Your task to perform on an android device: remove spam from my inbox in the gmail app Image 0: 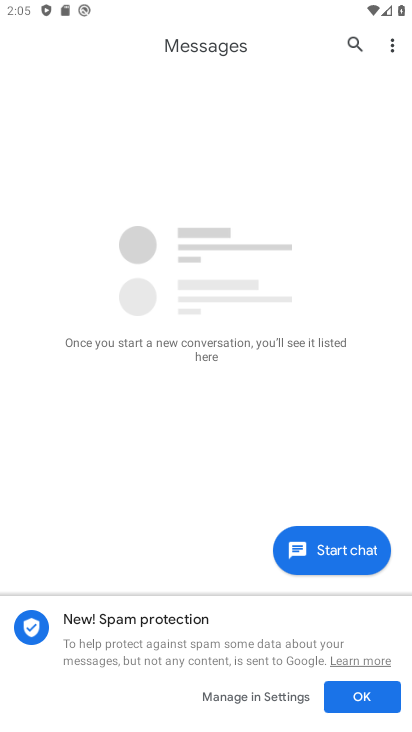
Step 0: click (369, 702)
Your task to perform on an android device: remove spam from my inbox in the gmail app Image 1: 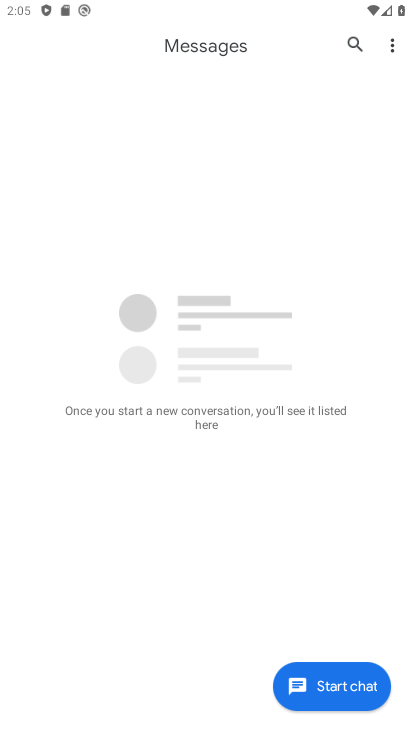
Step 1: click (337, 694)
Your task to perform on an android device: remove spam from my inbox in the gmail app Image 2: 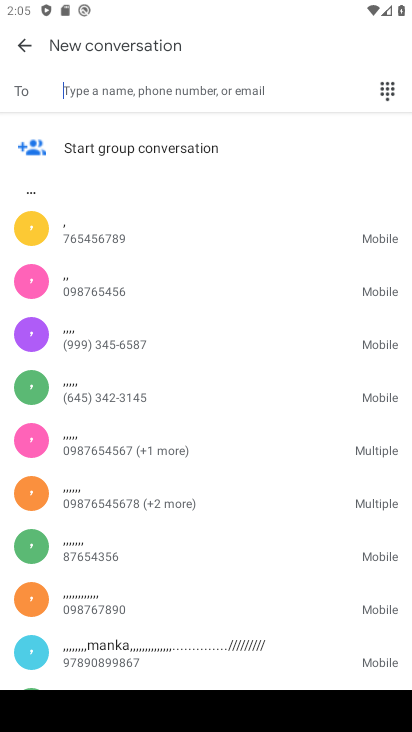
Step 2: click (29, 40)
Your task to perform on an android device: remove spam from my inbox in the gmail app Image 3: 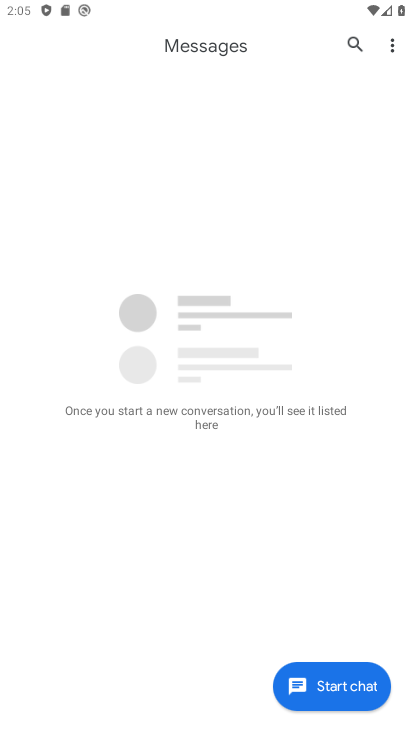
Step 3: press back button
Your task to perform on an android device: remove spam from my inbox in the gmail app Image 4: 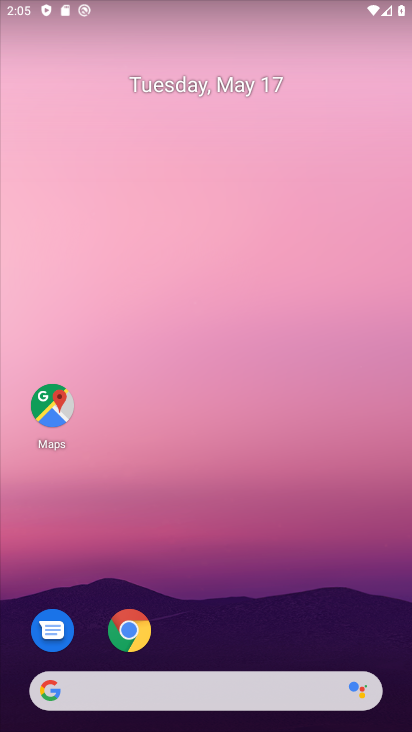
Step 4: drag from (331, 717) to (246, 68)
Your task to perform on an android device: remove spam from my inbox in the gmail app Image 5: 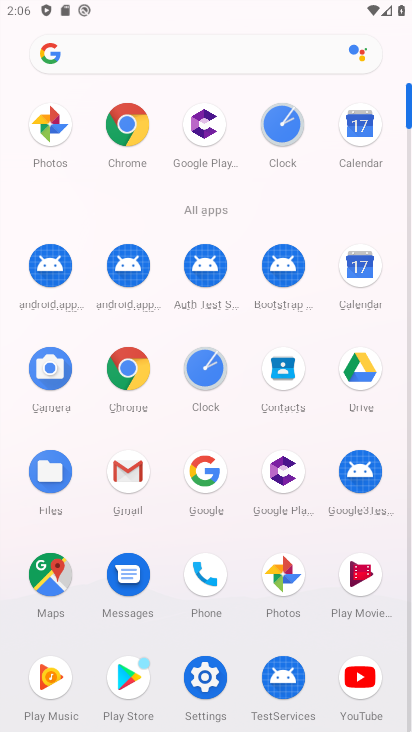
Step 5: click (124, 480)
Your task to perform on an android device: remove spam from my inbox in the gmail app Image 6: 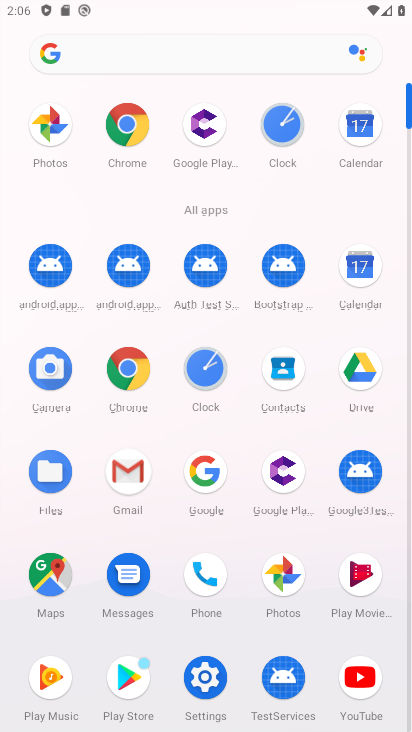
Step 6: click (133, 476)
Your task to perform on an android device: remove spam from my inbox in the gmail app Image 7: 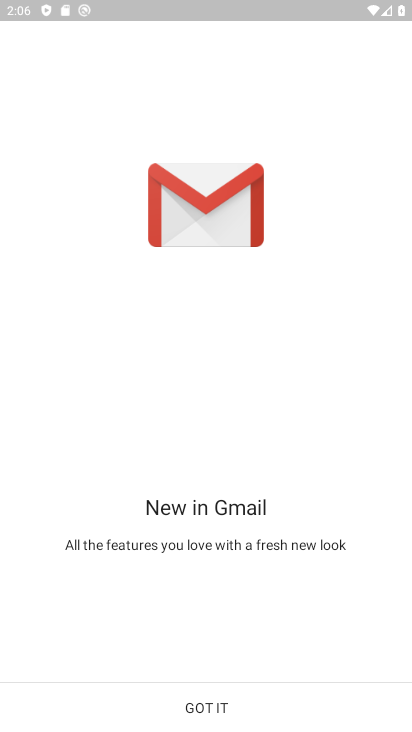
Step 7: click (220, 711)
Your task to perform on an android device: remove spam from my inbox in the gmail app Image 8: 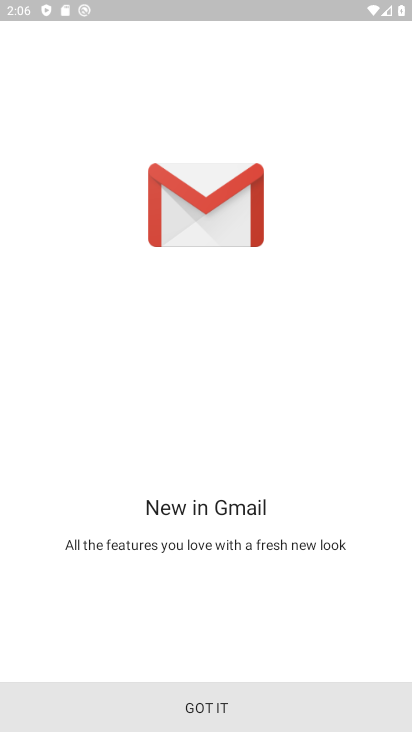
Step 8: click (219, 711)
Your task to perform on an android device: remove spam from my inbox in the gmail app Image 9: 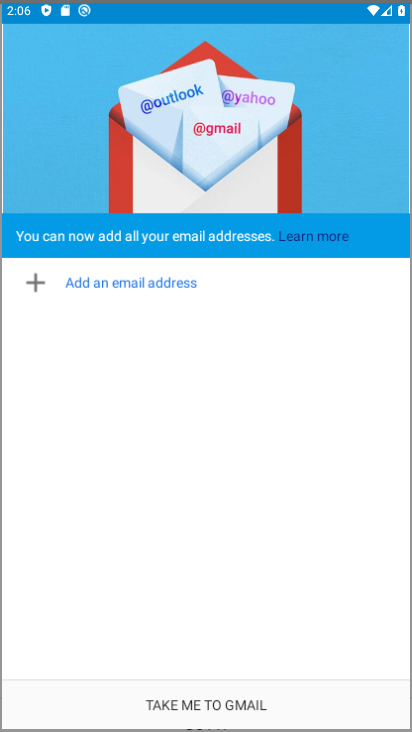
Step 9: click (219, 711)
Your task to perform on an android device: remove spam from my inbox in the gmail app Image 10: 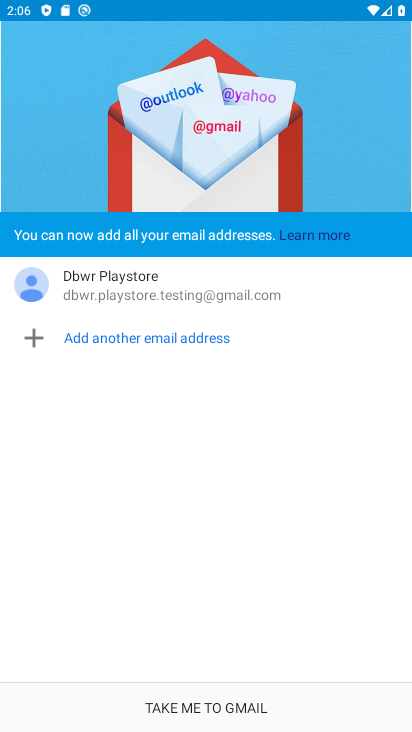
Step 10: click (219, 711)
Your task to perform on an android device: remove spam from my inbox in the gmail app Image 11: 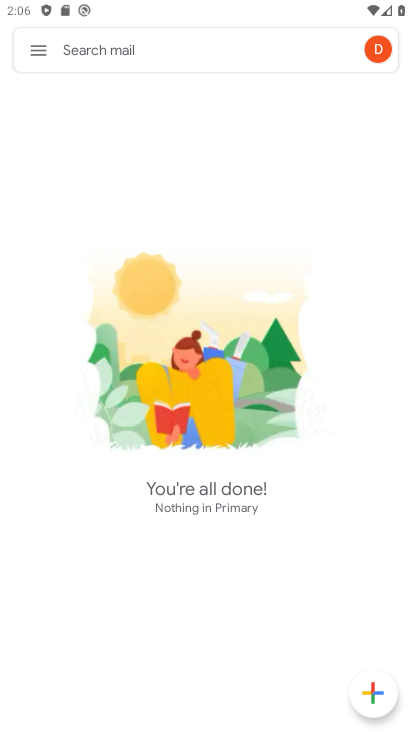
Step 11: click (40, 49)
Your task to perform on an android device: remove spam from my inbox in the gmail app Image 12: 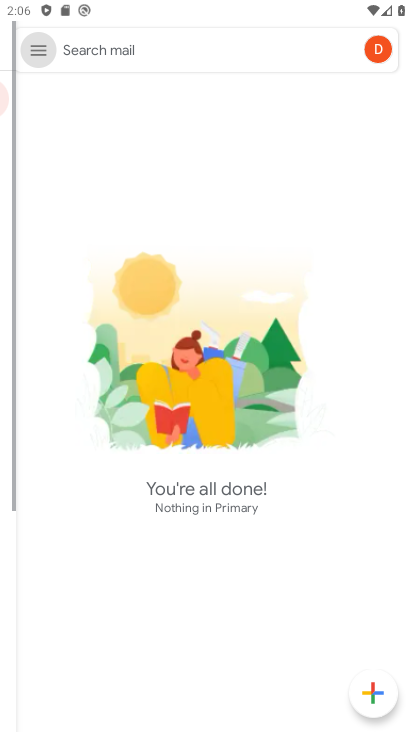
Step 12: click (34, 55)
Your task to perform on an android device: remove spam from my inbox in the gmail app Image 13: 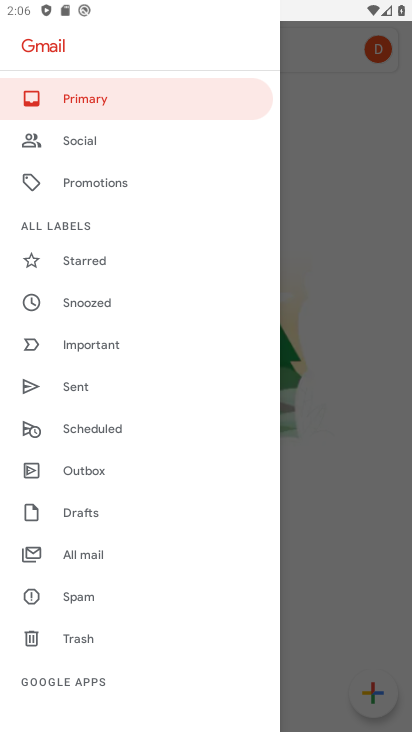
Step 13: click (67, 587)
Your task to perform on an android device: remove spam from my inbox in the gmail app Image 14: 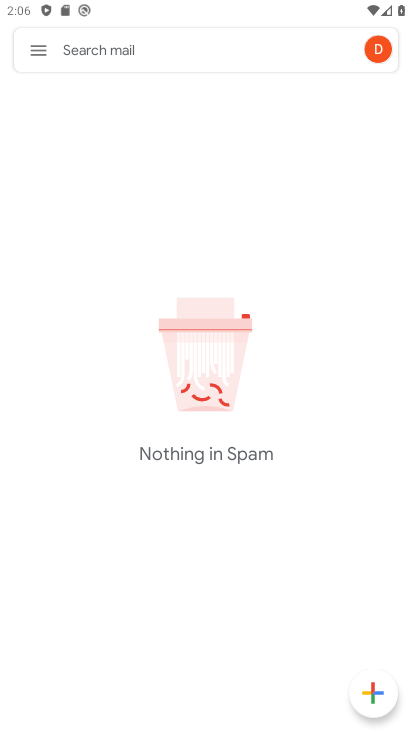
Step 14: task complete